Your task to perform on an android device: Show me popular games on the Play Store Image 0: 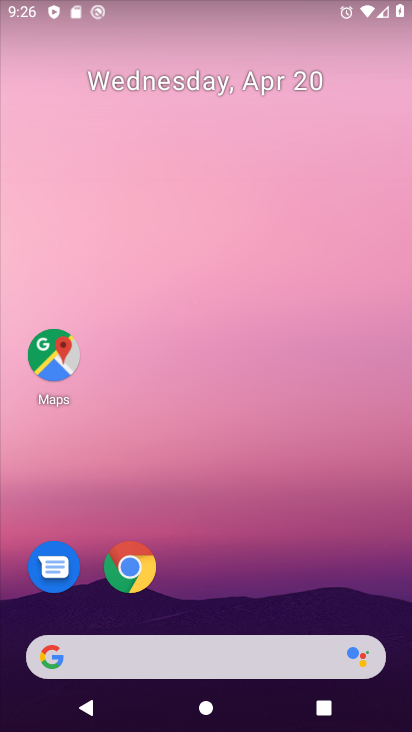
Step 0: drag from (352, 537) to (344, 155)
Your task to perform on an android device: Show me popular games on the Play Store Image 1: 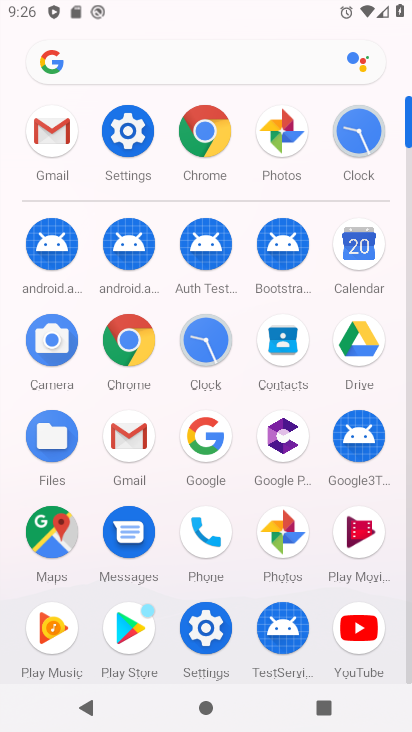
Step 1: click (145, 627)
Your task to perform on an android device: Show me popular games on the Play Store Image 2: 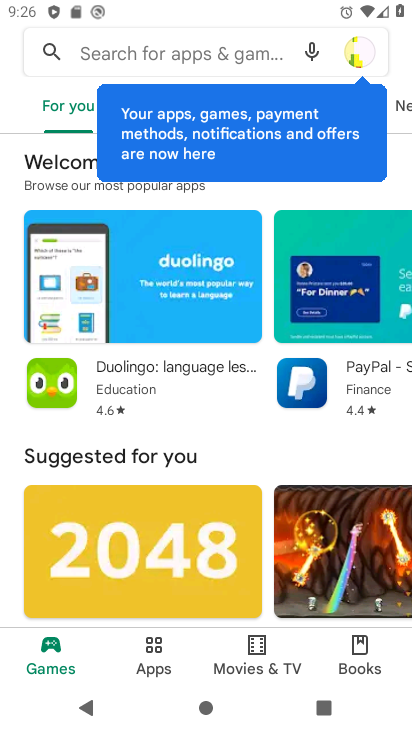
Step 2: task complete